Your task to perform on an android device: Do I have any events this weekend? Image 0: 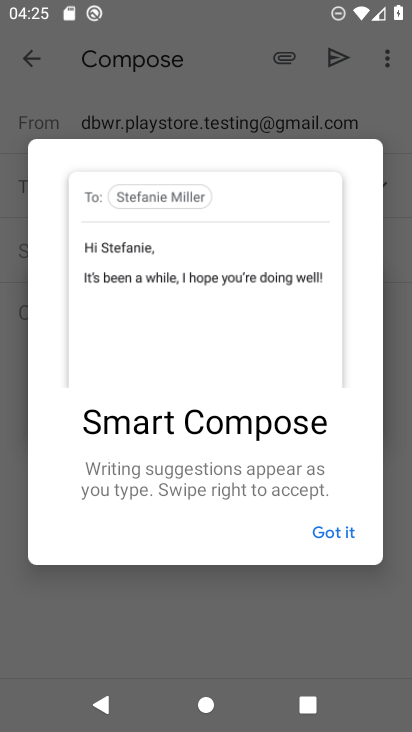
Step 0: press home button
Your task to perform on an android device: Do I have any events this weekend? Image 1: 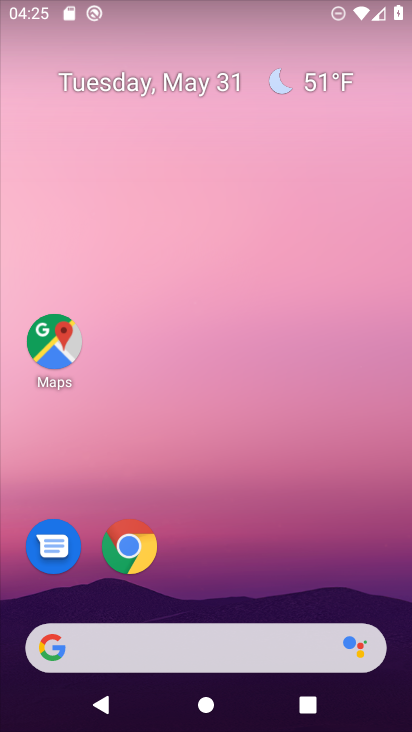
Step 1: drag from (247, 559) to (132, 4)
Your task to perform on an android device: Do I have any events this weekend? Image 2: 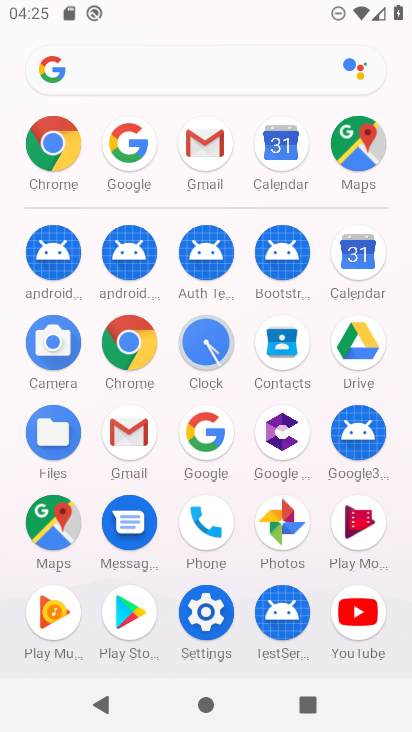
Step 2: click (349, 291)
Your task to perform on an android device: Do I have any events this weekend? Image 3: 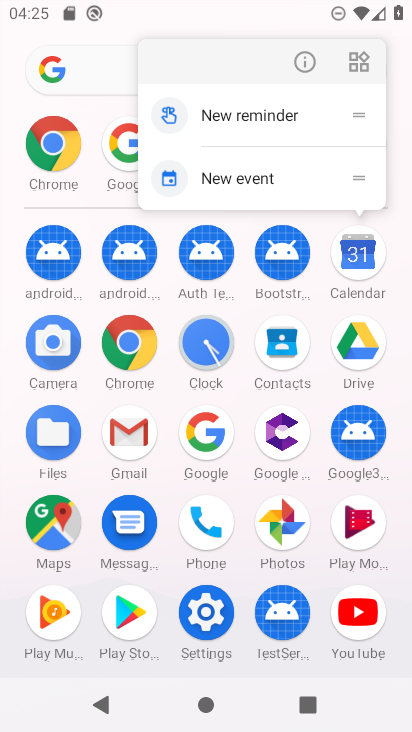
Step 3: click (353, 283)
Your task to perform on an android device: Do I have any events this weekend? Image 4: 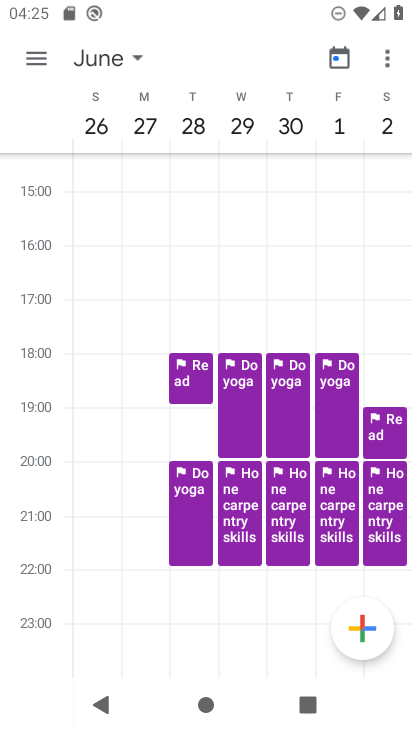
Step 4: click (90, 74)
Your task to perform on an android device: Do I have any events this weekend? Image 5: 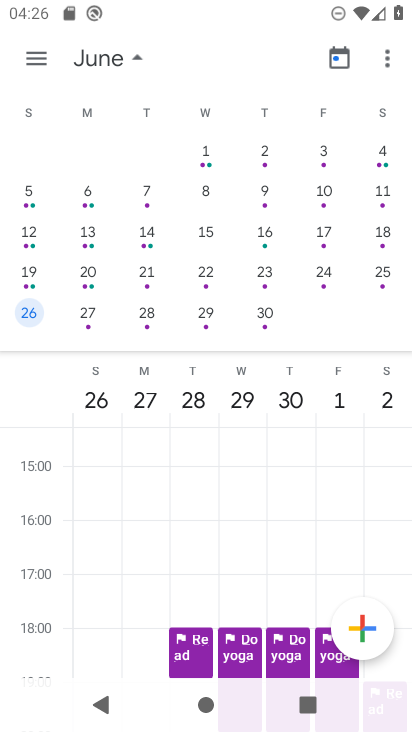
Step 5: task complete